Your task to perform on an android device: uninstall "Google Home" Image 0: 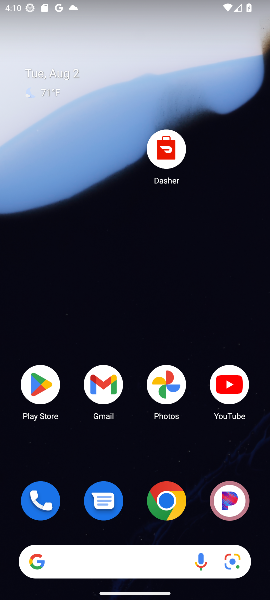
Step 0: click (41, 393)
Your task to perform on an android device: uninstall "Google Home" Image 1: 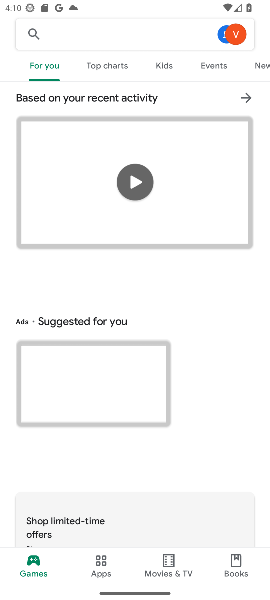
Step 1: click (91, 38)
Your task to perform on an android device: uninstall "Google Home" Image 2: 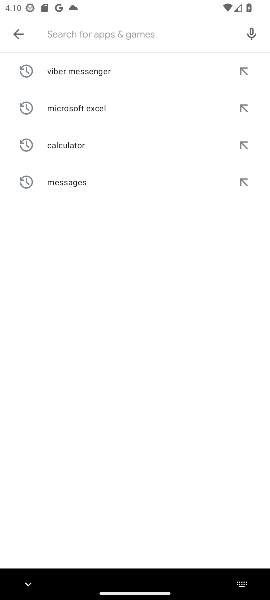
Step 2: type "Google Home"
Your task to perform on an android device: uninstall "Google Home" Image 3: 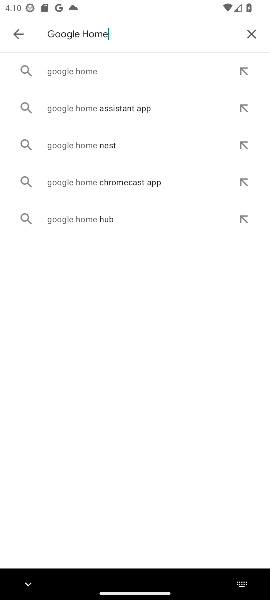
Step 3: click (56, 78)
Your task to perform on an android device: uninstall "Google Home" Image 4: 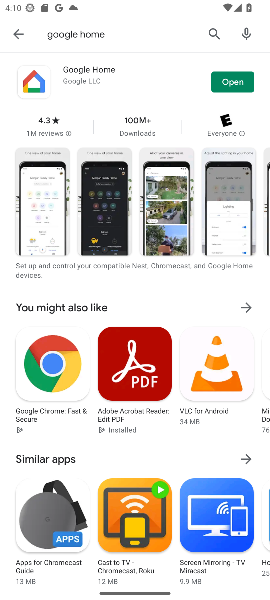
Step 4: click (62, 73)
Your task to perform on an android device: uninstall "Google Home" Image 5: 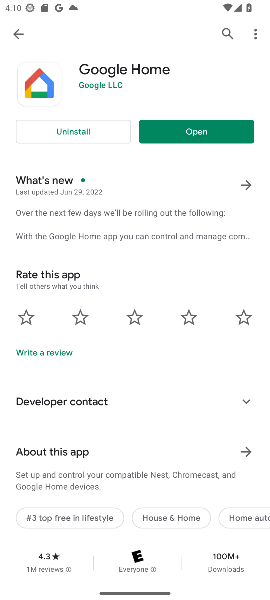
Step 5: click (67, 131)
Your task to perform on an android device: uninstall "Google Home" Image 6: 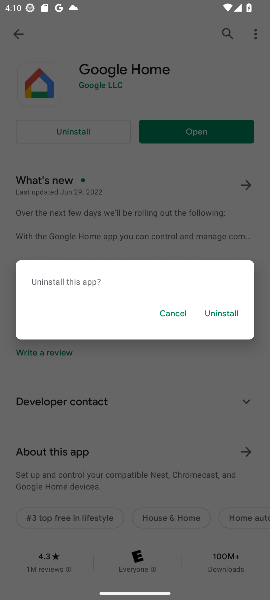
Step 6: click (224, 313)
Your task to perform on an android device: uninstall "Google Home" Image 7: 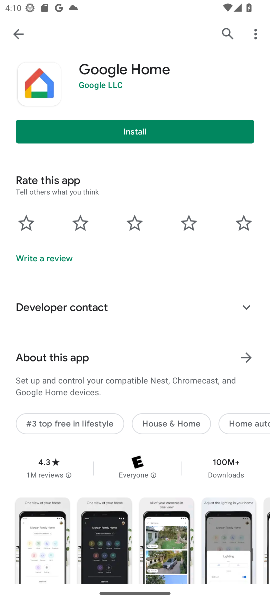
Step 7: task complete